Your task to perform on an android device: Show me productivity apps on the Play Store Image 0: 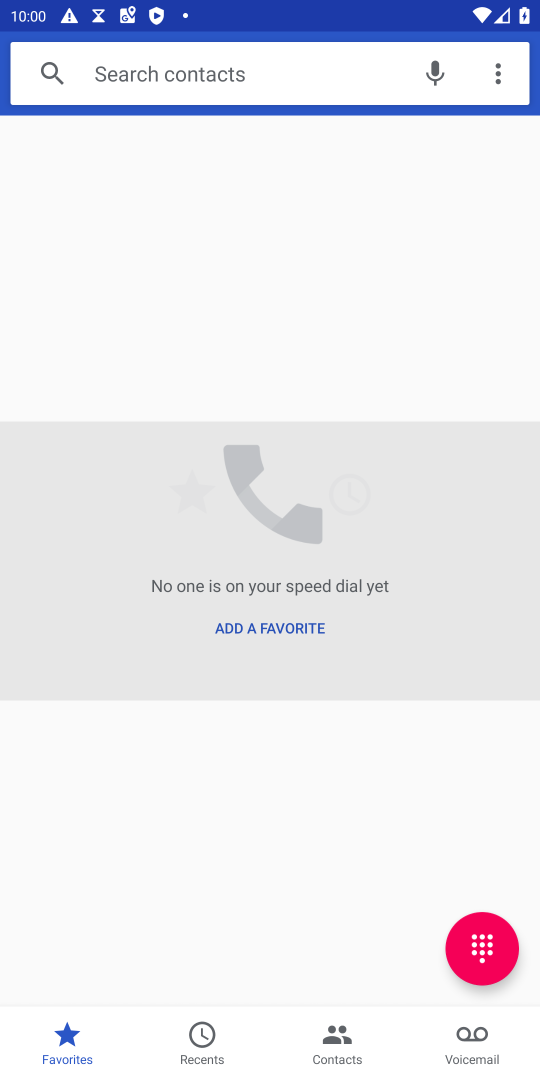
Step 0: press home button
Your task to perform on an android device: Show me productivity apps on the Play Store Image 1: 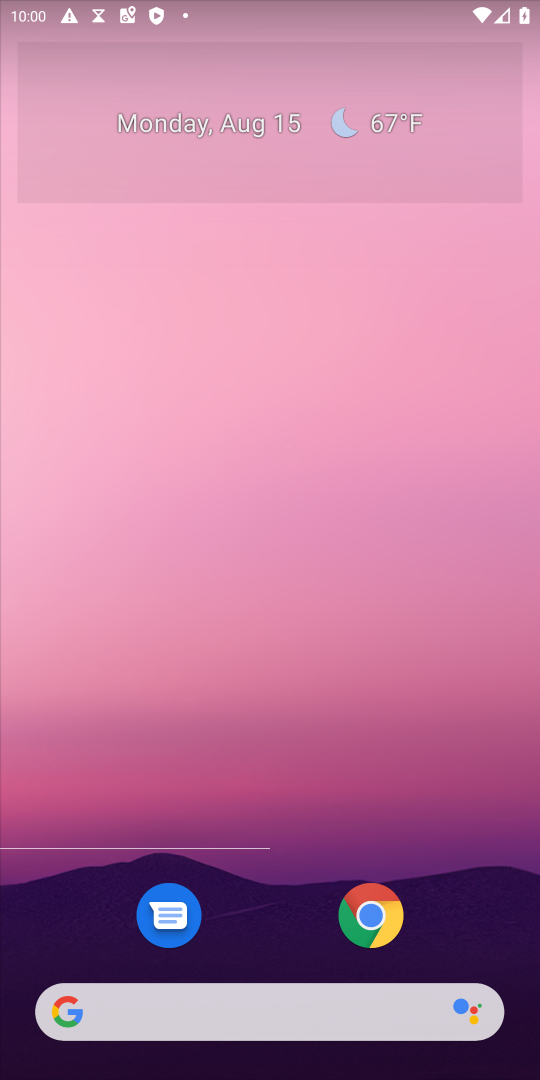
Step 1: drag from (261, 880) to (303, 213)
Your task to perform on an android device: Show me productivity apps on the Play Store Image 2: 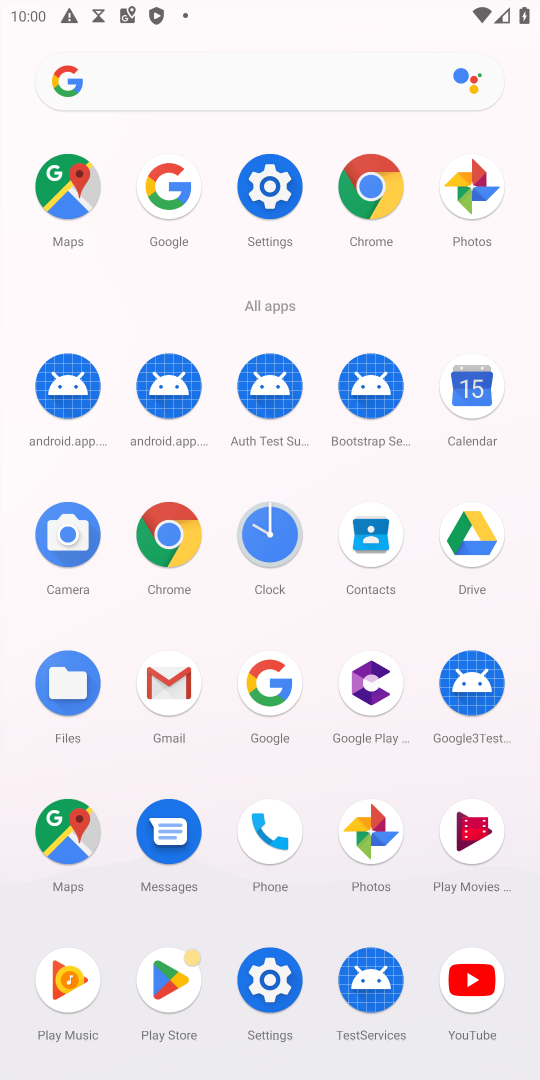
Step 2: click (175, 986)
Your task to perform on an android device: Show me productivity apps on the Play Store Image 3: 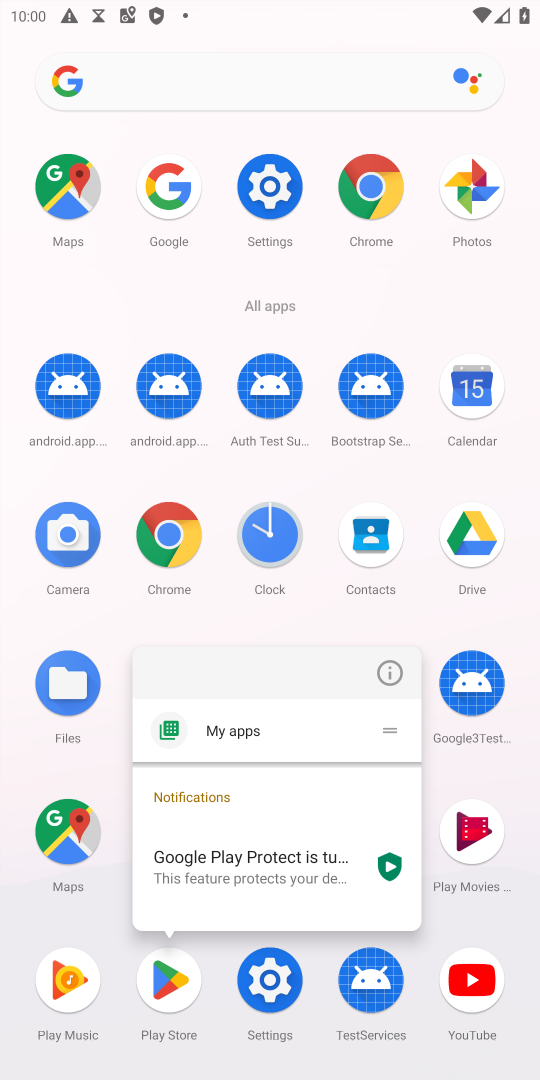
Step 3: click (175, 988)
Your task to perform on an android device: Show me productivity apps on the Play Store Image 4: 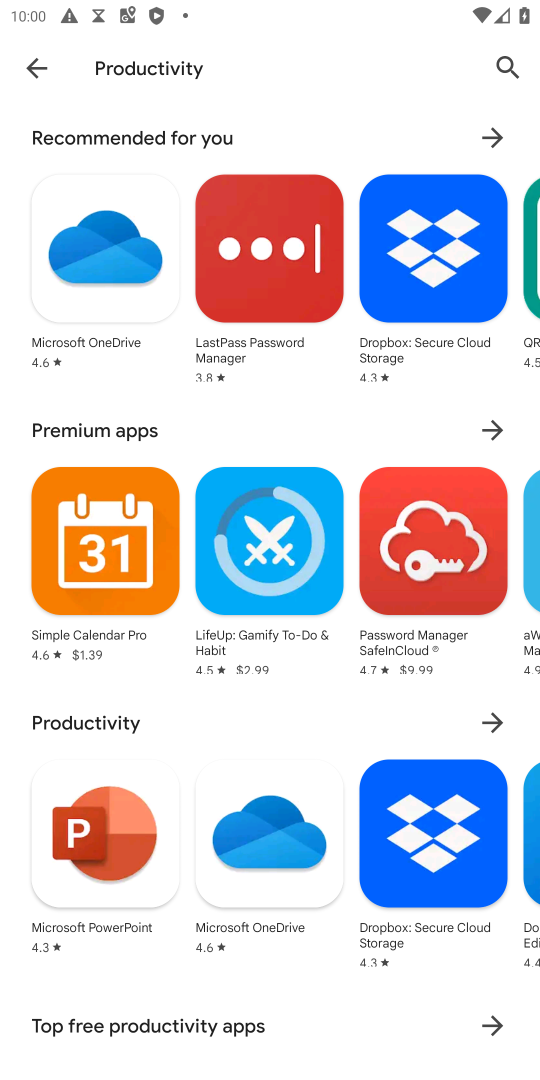
Step 4: click (492, 725)
Your task to perform on an android device: Show me productivity apps on the Play Store Image 5: 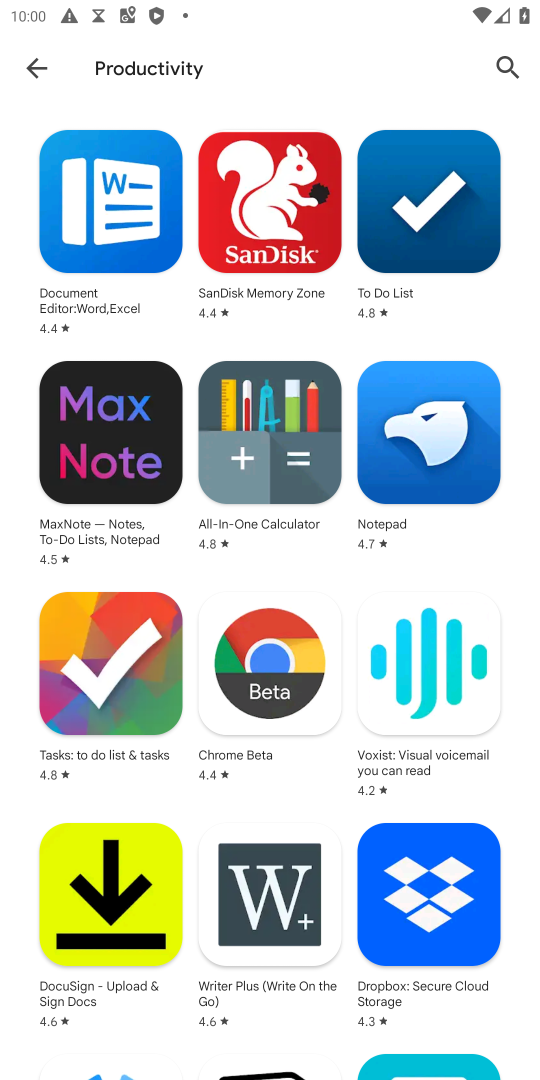
Step 5: task complete